Your task to perform on an android device: uninstall "Skype" Image 0: 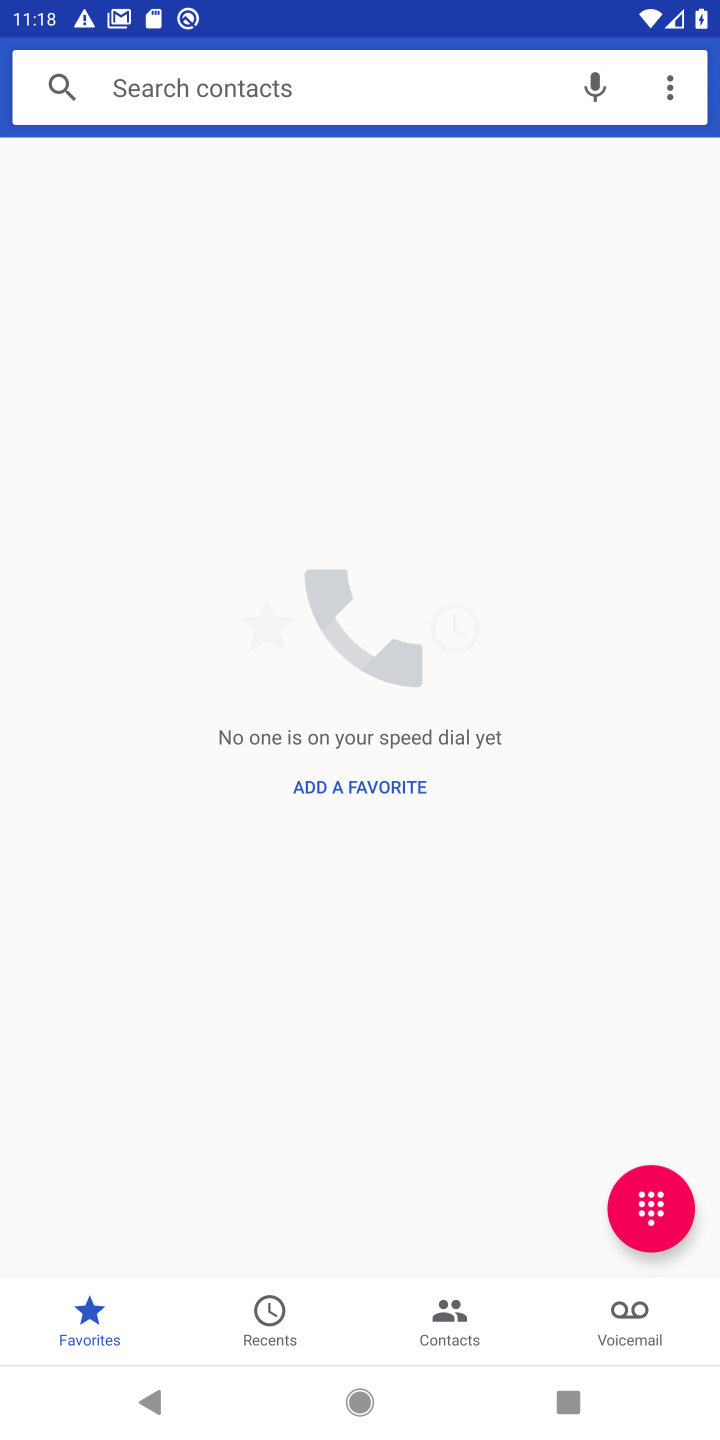
Step 0: press back button
Your task to perform on an android device: uninstall "Skype" Image 1: 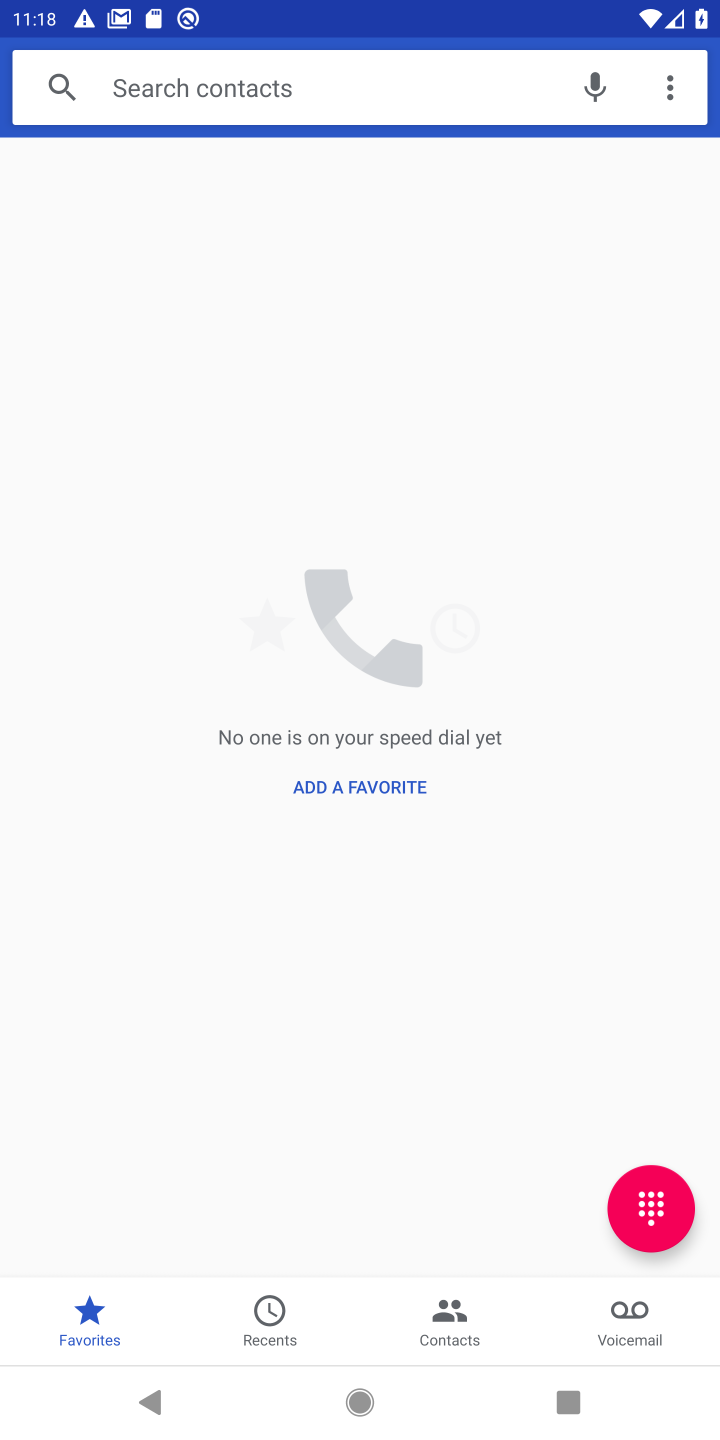
Step 1: press back button
Your task to perform on an android device: uninstall "Skype" Image 2: 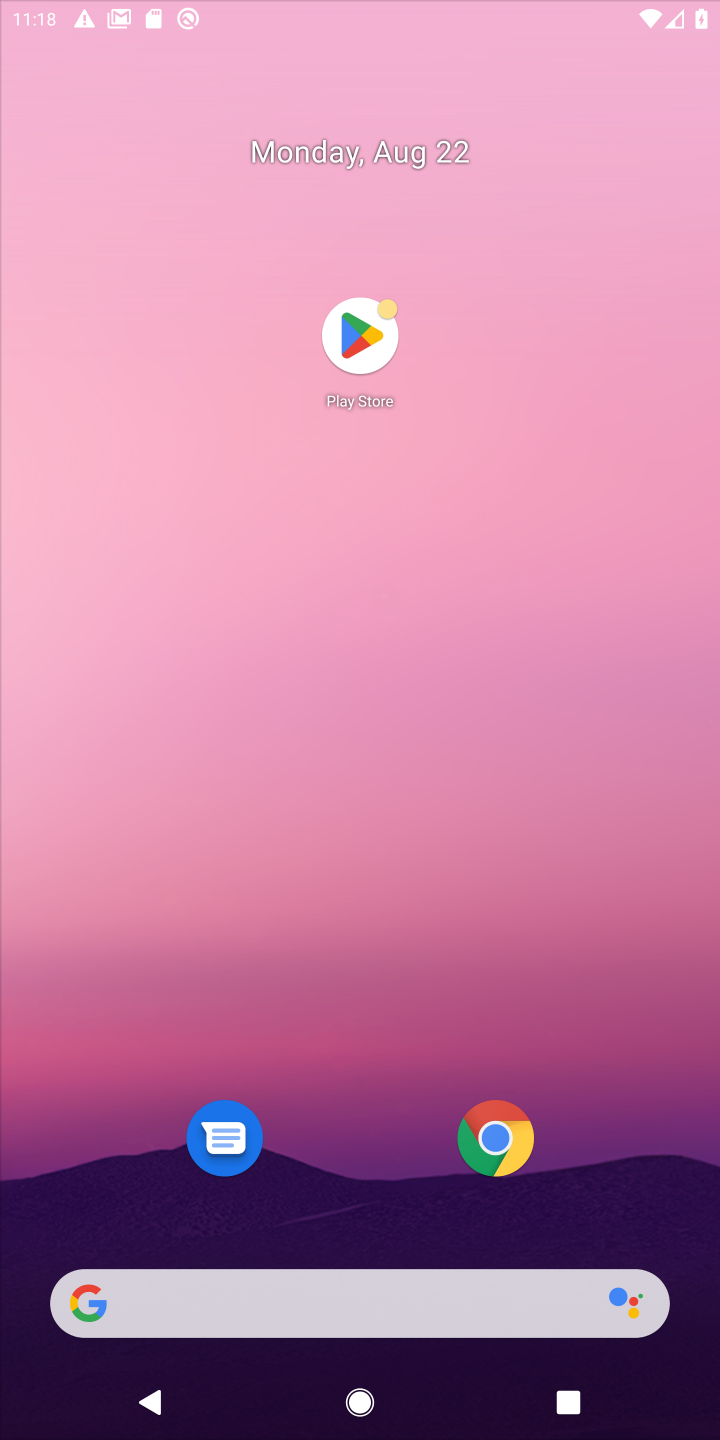
Step 2: press home button
Your task to perform on an android device: uninstall "Skype" Image 3: 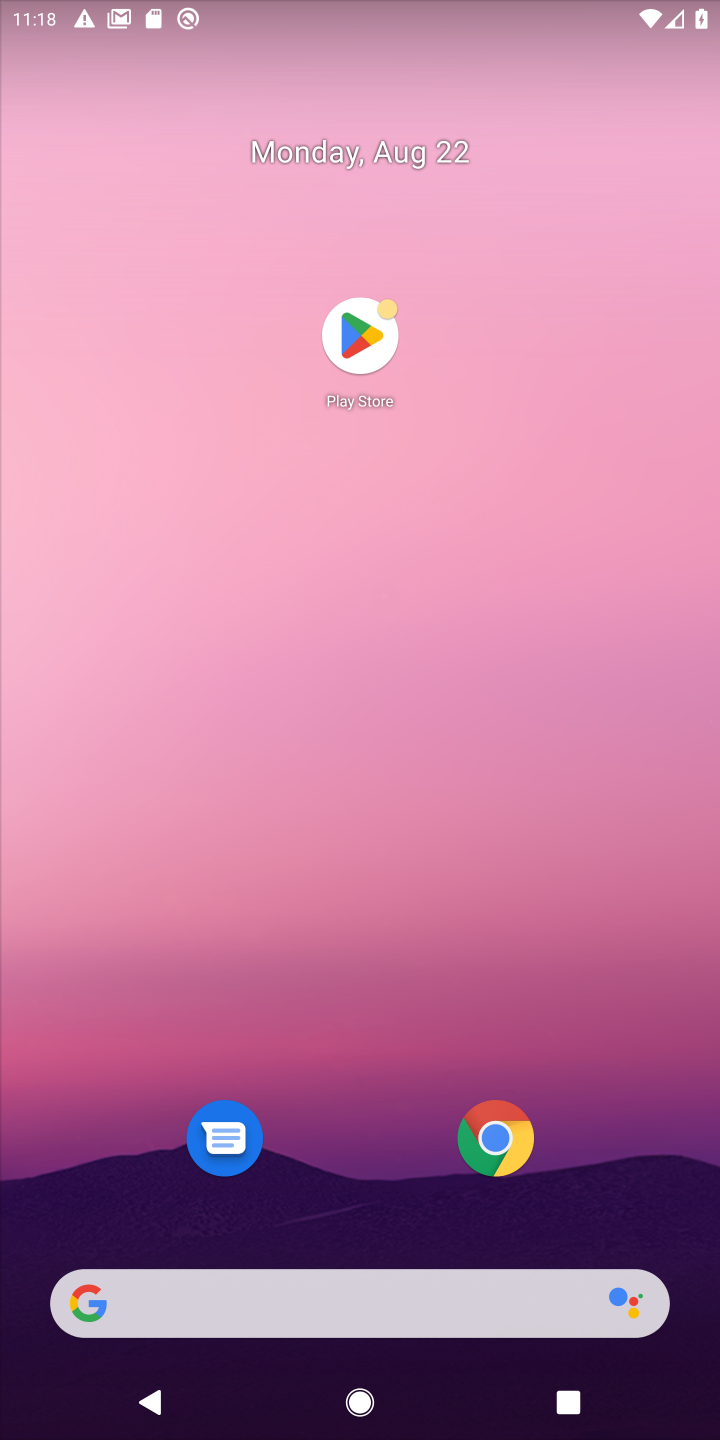
Step 3: click (355, 341)
Your task to perform on an android device: uninstall "Skype" Image 4: 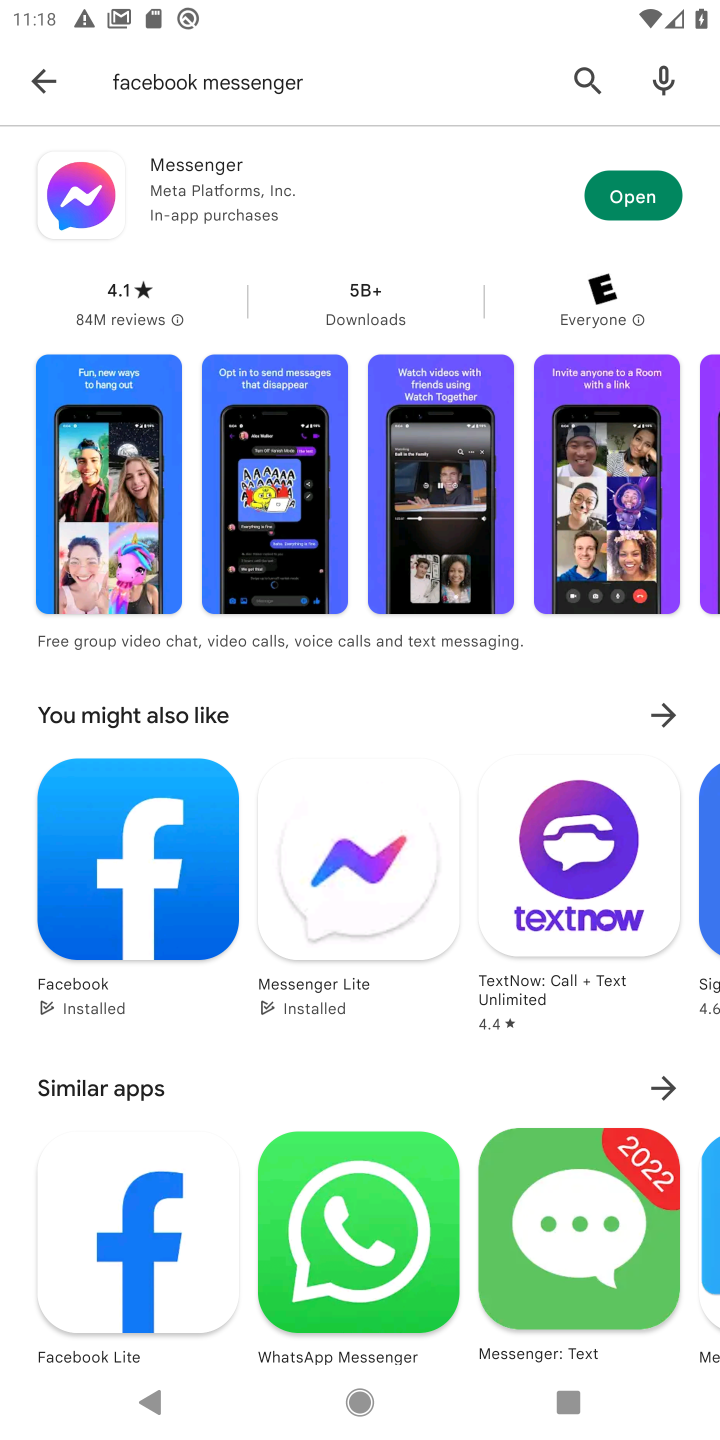
Step 4: click (586, 78)
Your task to perform on an android device: uninstall "Skype" Image 5: 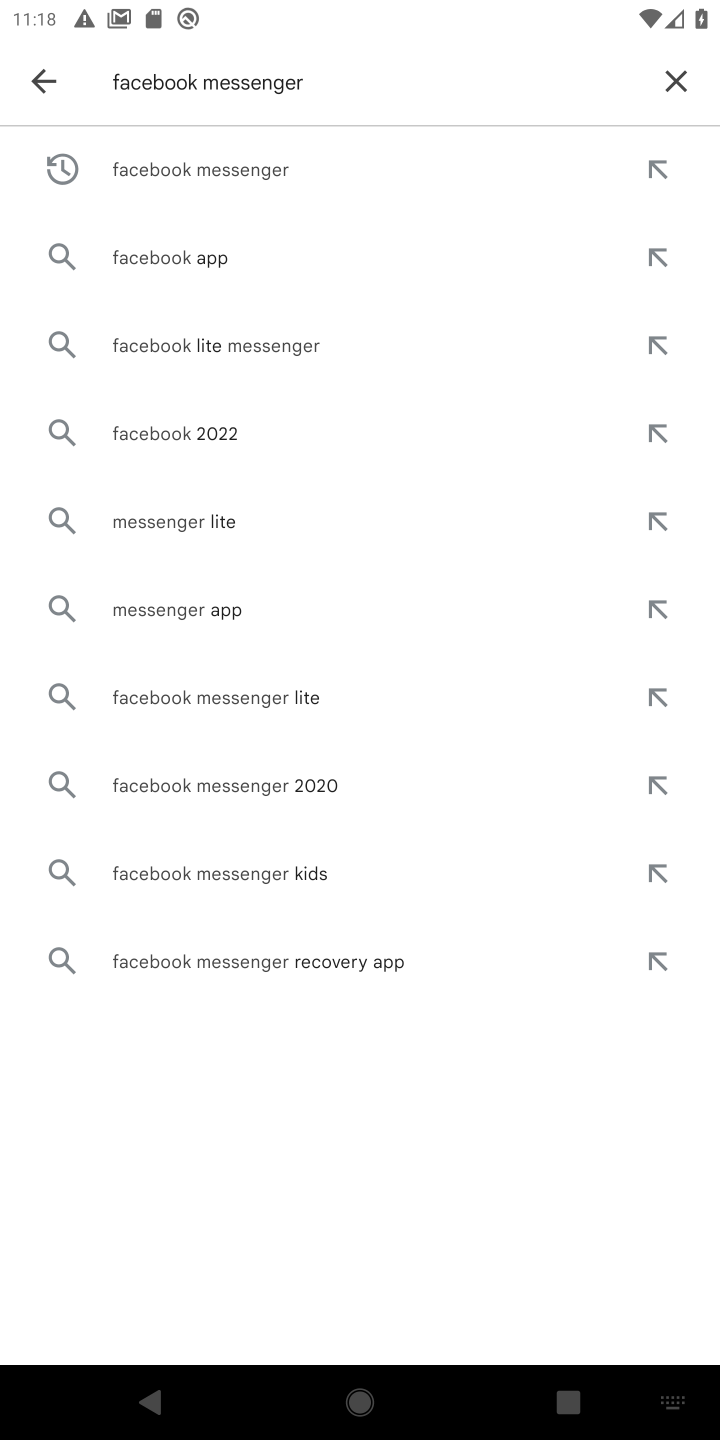
Step 5: click (678, 80)
Your task to perform on an android device: uninstall "Skype" Image 6: 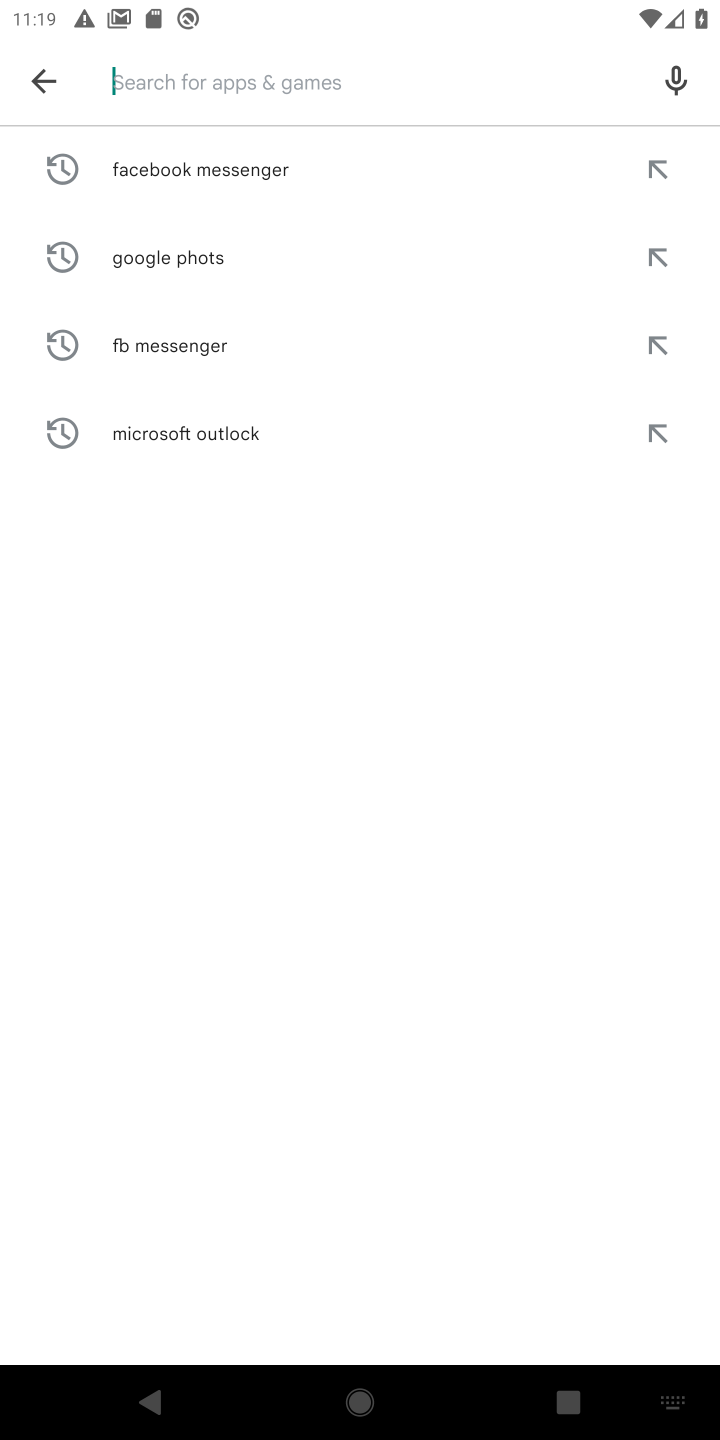
Step 6: type "skype"
Your task to perform on an android device: uninstall "Skype" Image 7: 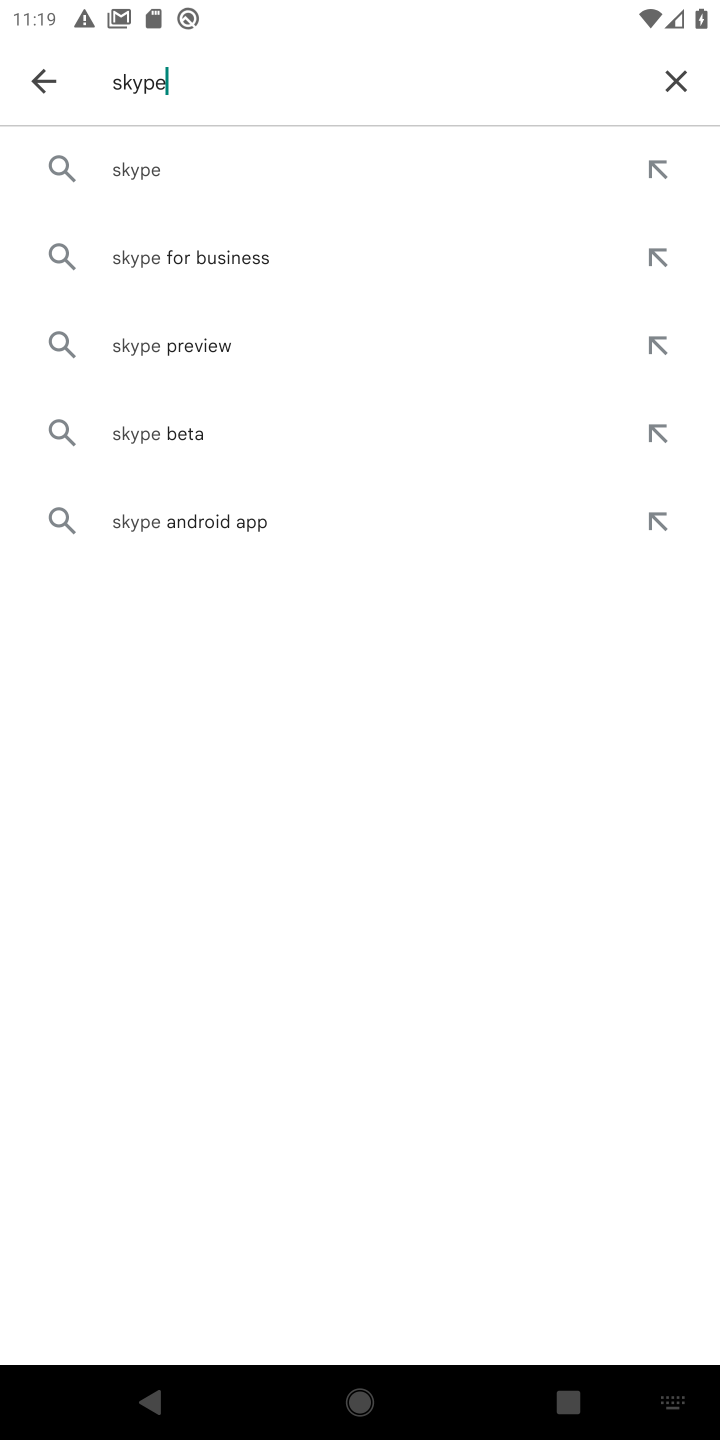
Step 7: click (125, 175)
Your task to perform on an android device: uninstall "Skype" Image 8: 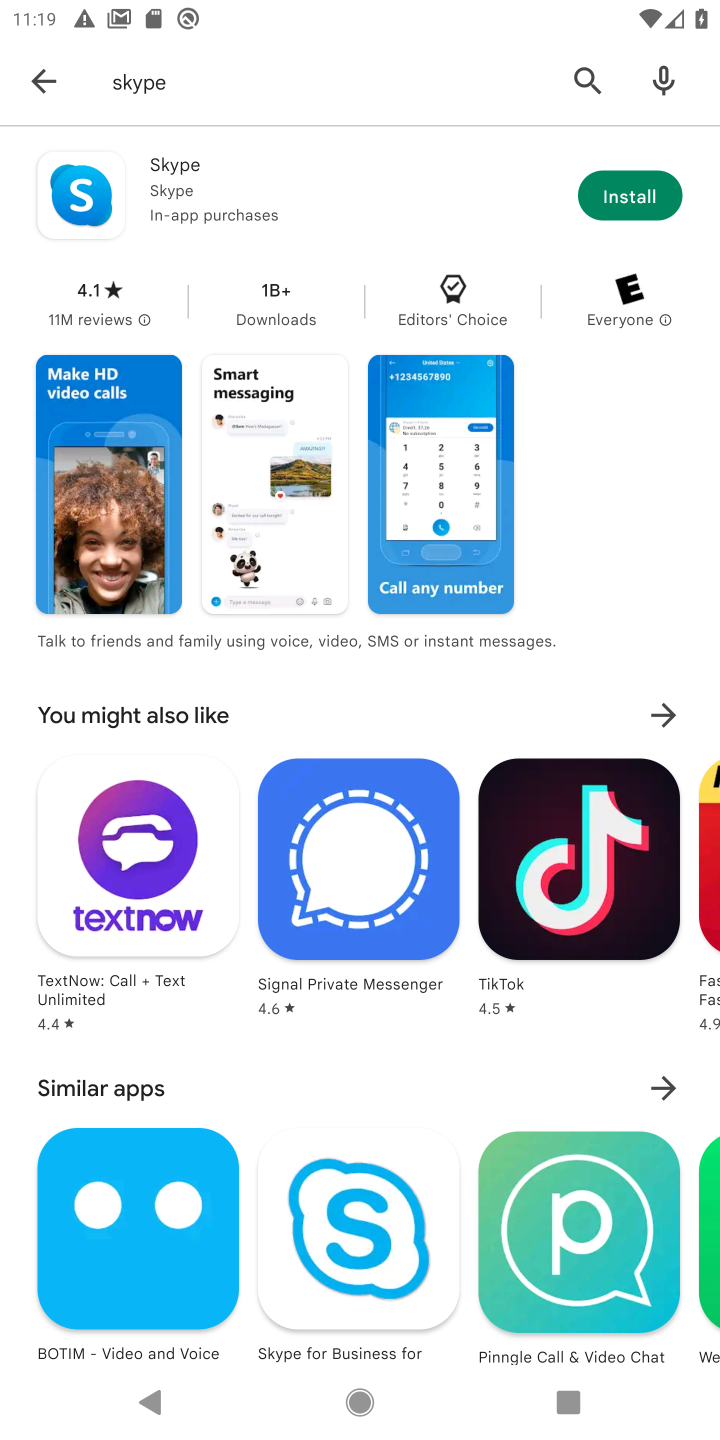
Step 8: task complete